Your task to perform on an android device: What is the capital of the United Kingdom? Image 0: 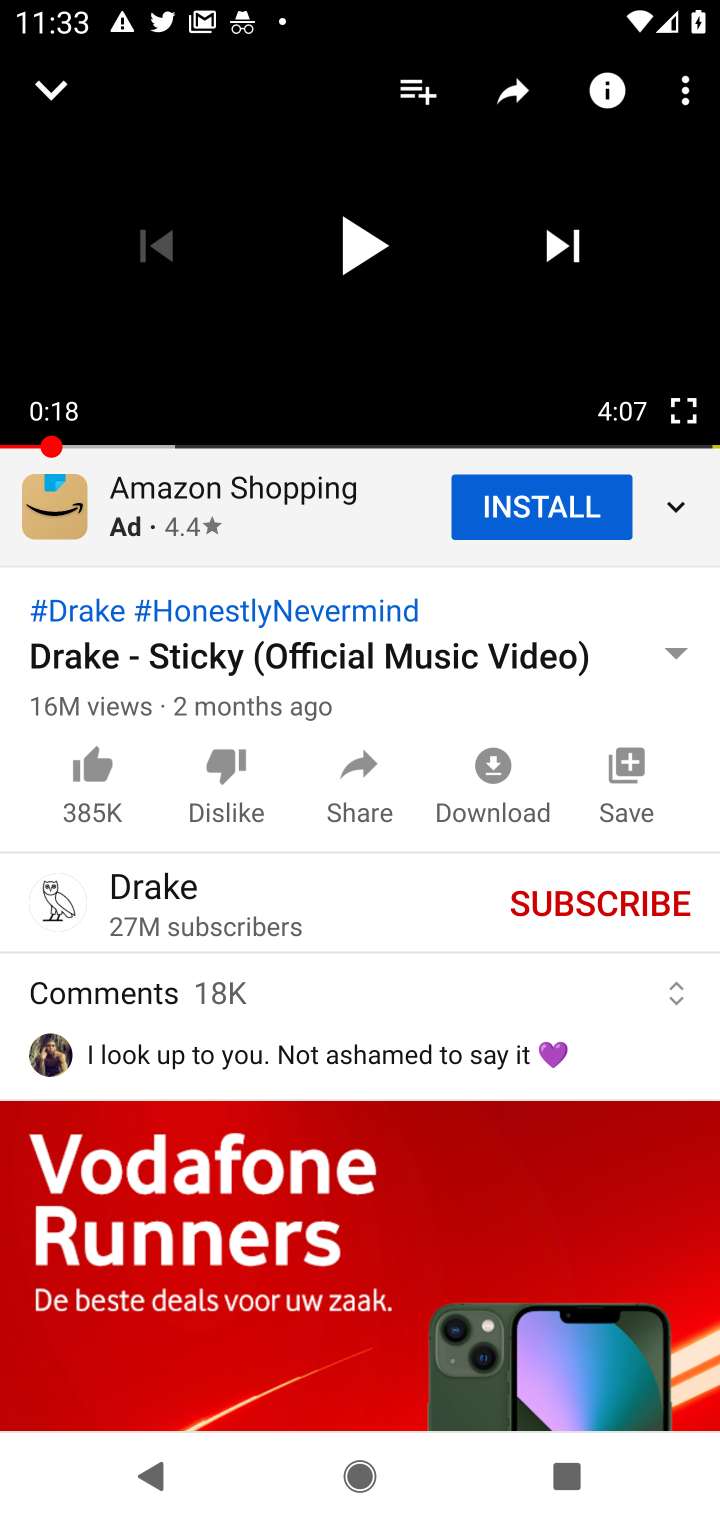
Step 0: press home button
Your task to perform on an android device: What is the capital of the United Kingdom? Image 1: 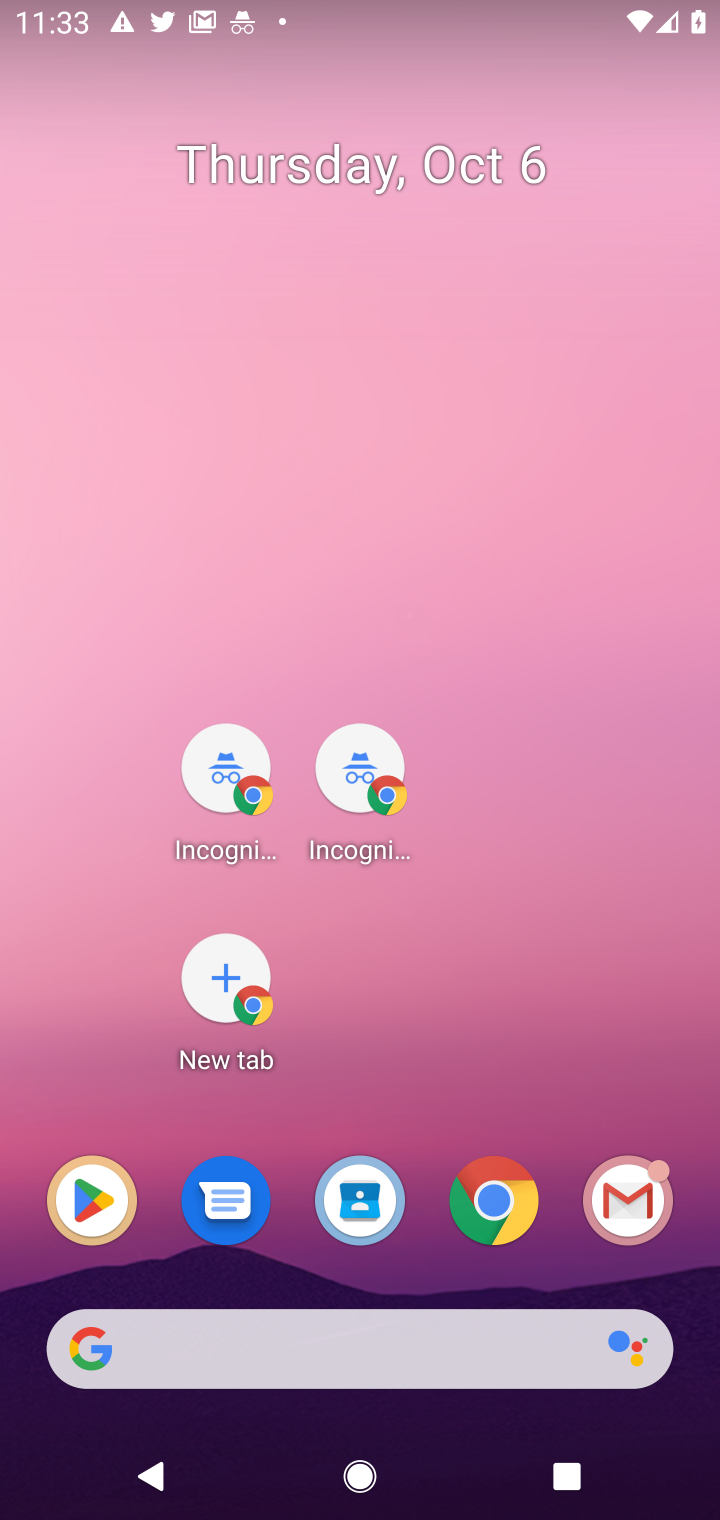
Step 1: click (499, 1202)
Your task to perform on an android device: What is the capital of the United Kingdom? Image 2: 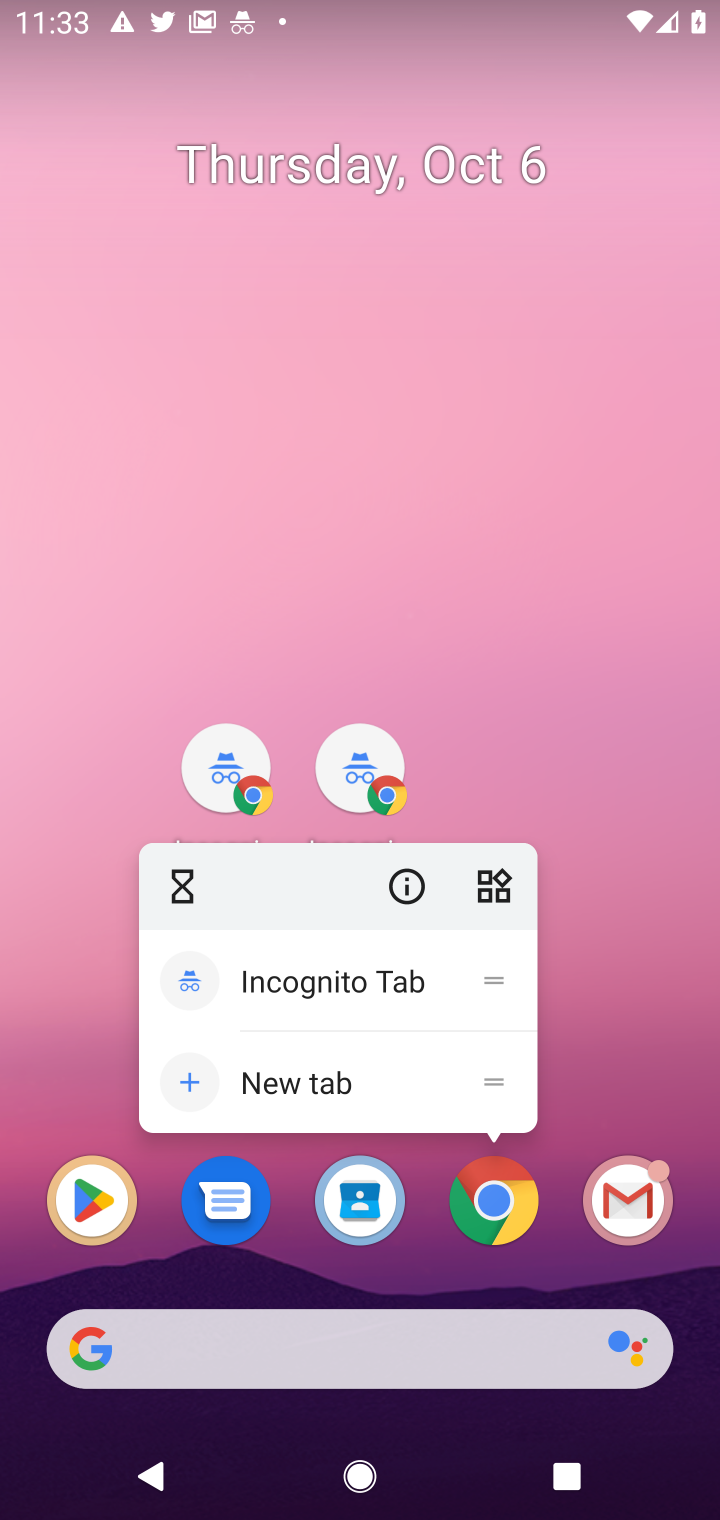
Step 2: click (500, 1205)
Your task to perform on an android device: What is the capital of the United Kingdom? Image 3: 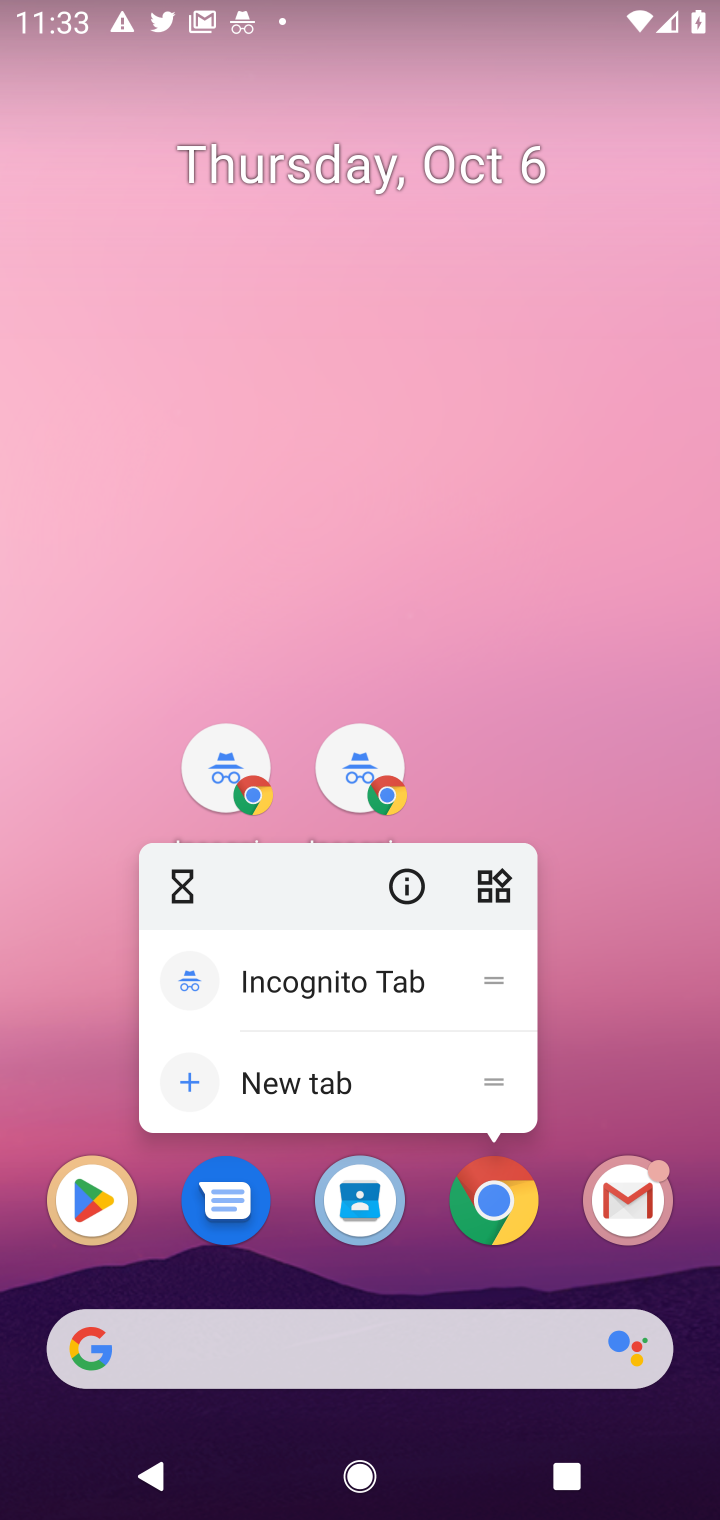
Step 3: press back button
Your task to perform on an android device: What is the capital of the United Kingdom? Image 4: 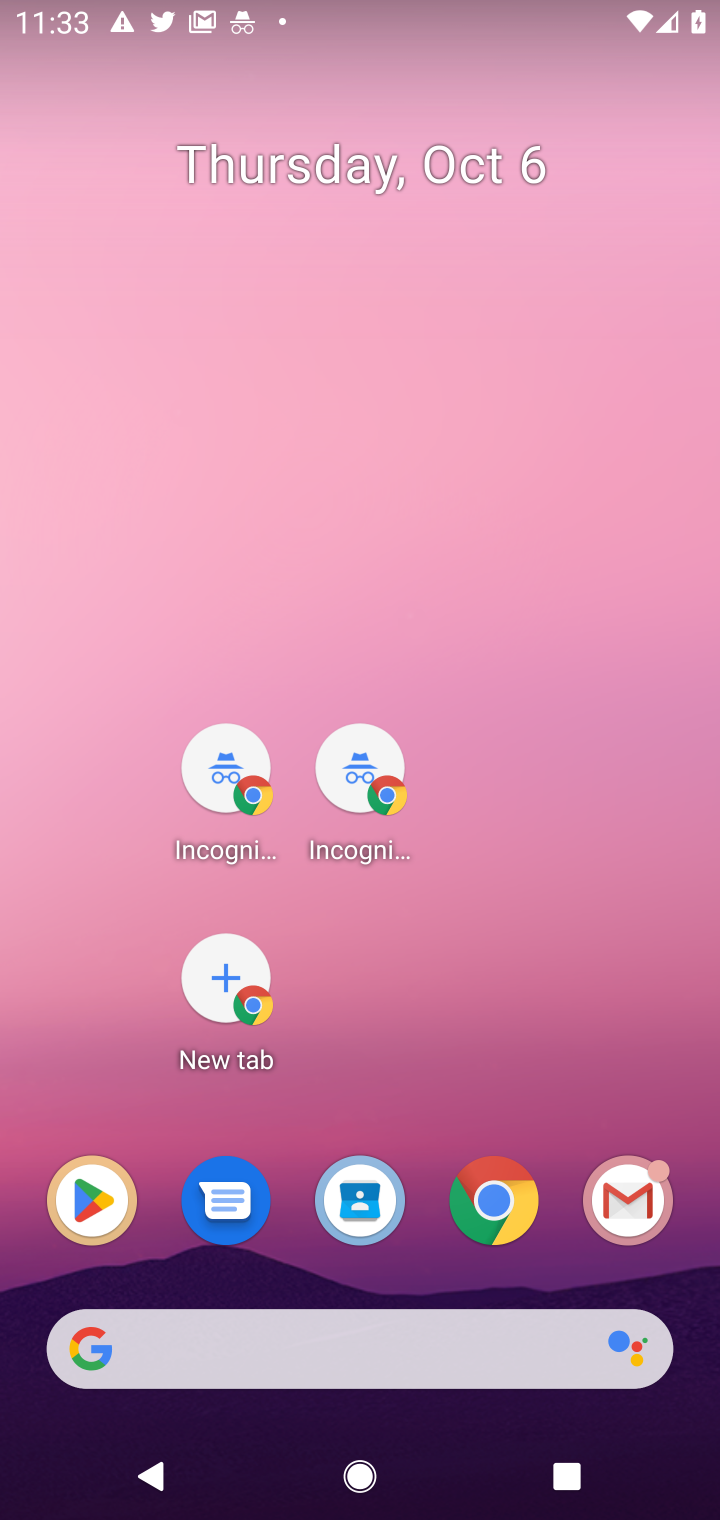
Step 4: press back button
Your task to perform on an android device: What is the capital of the United Kingdom? Image 5: 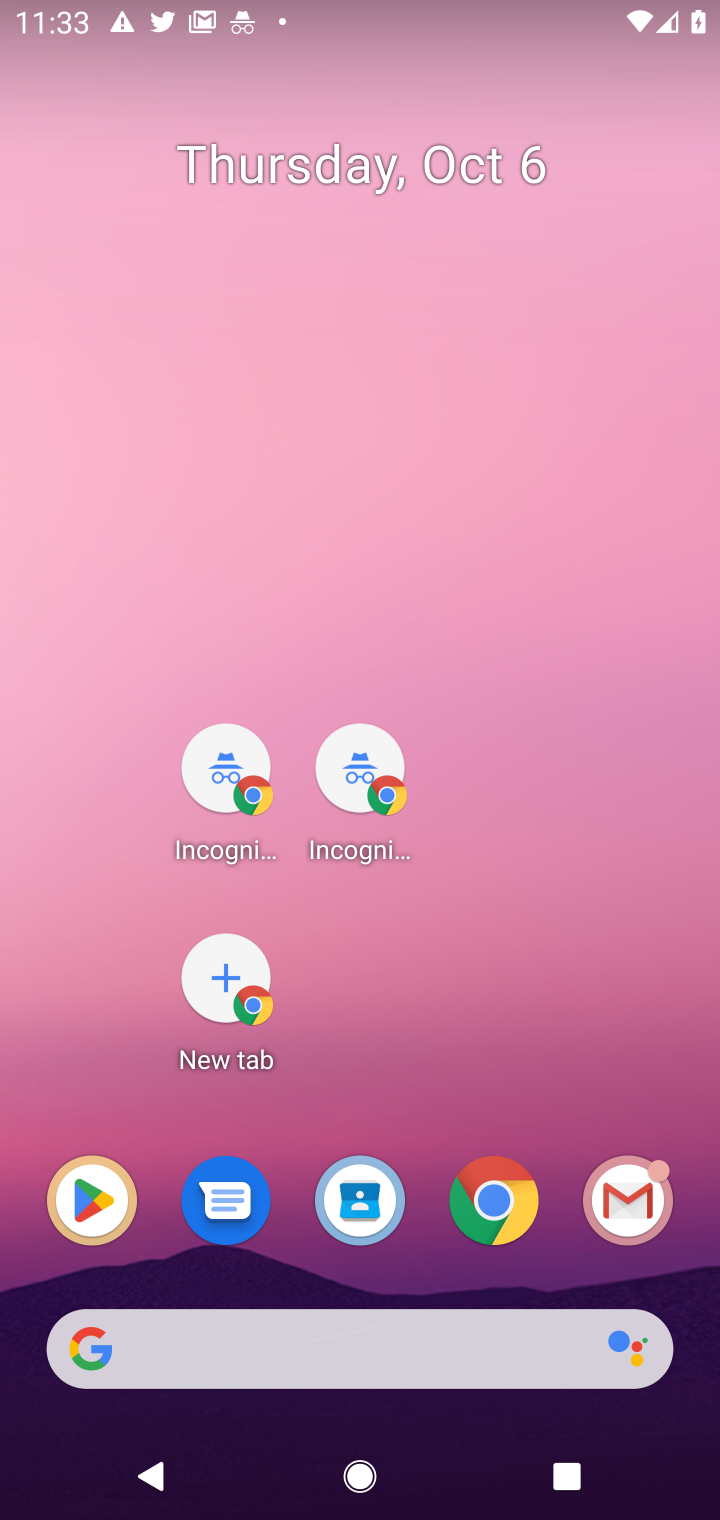
Step 5: press back button
Your task to perform on an android device: What is the capital of the United Kingdom? Image 6: 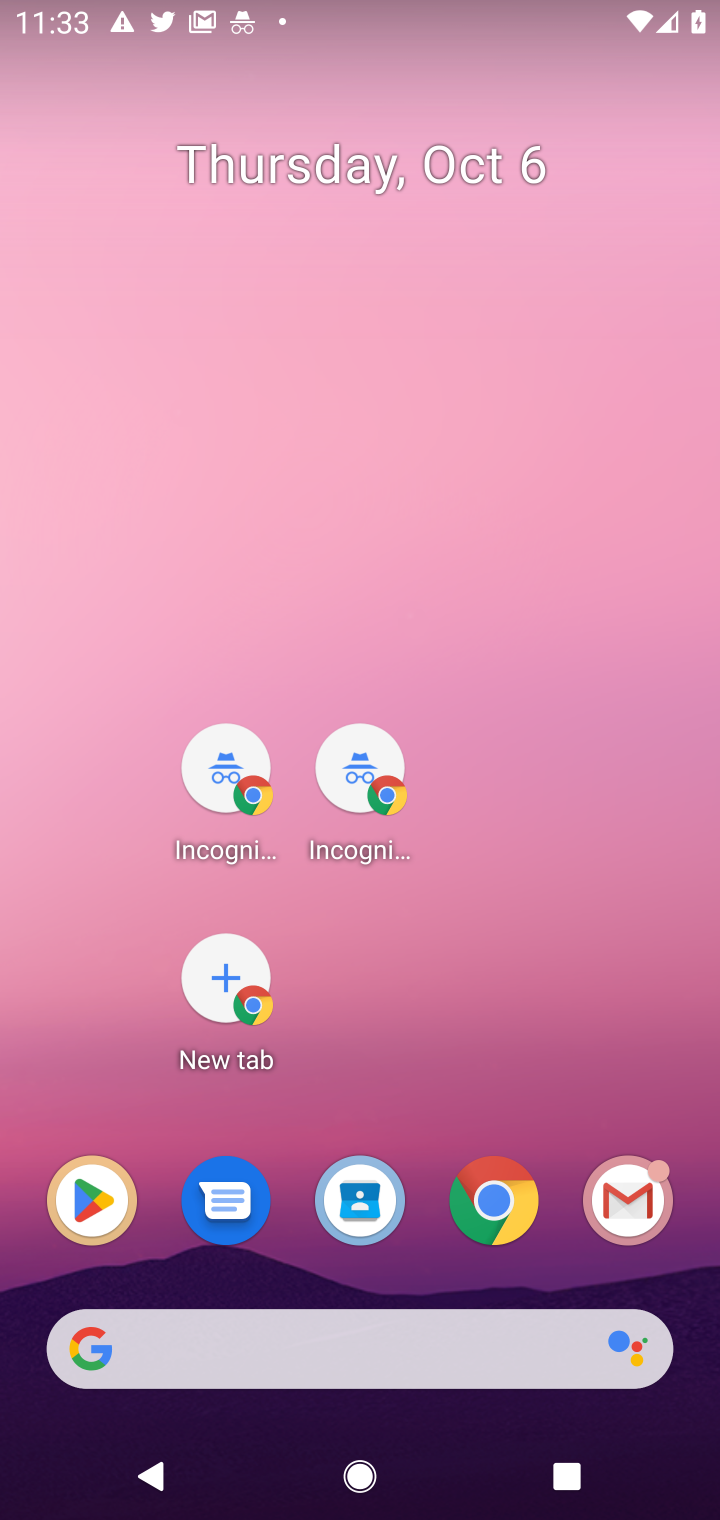
Step 6: click (506, 1211)
Your task to perform on an android device: What is the capital of the United Kingdom? Image 7: 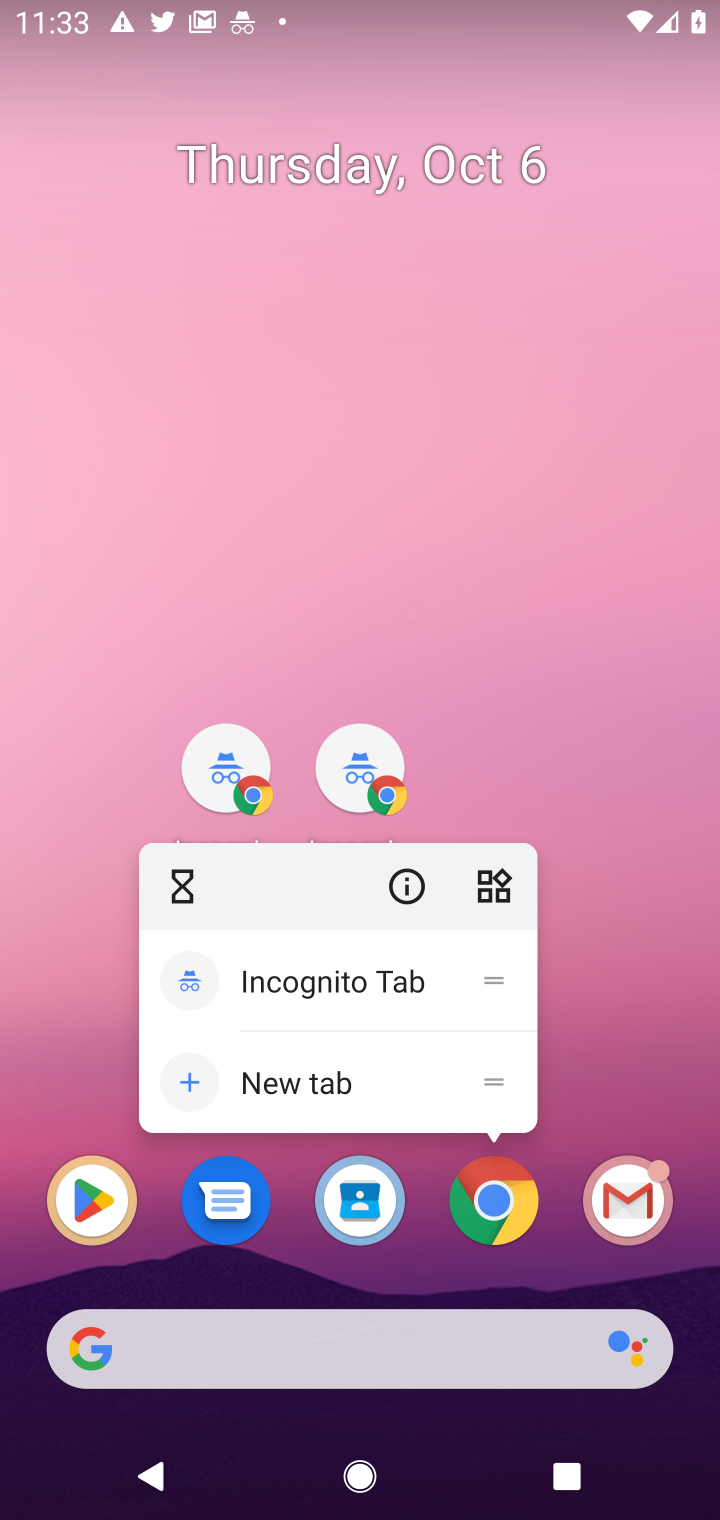
Step 7: click (508, 1225)
Your task to perform on an android device: What is the capital of the United Kingdom? Image 8: 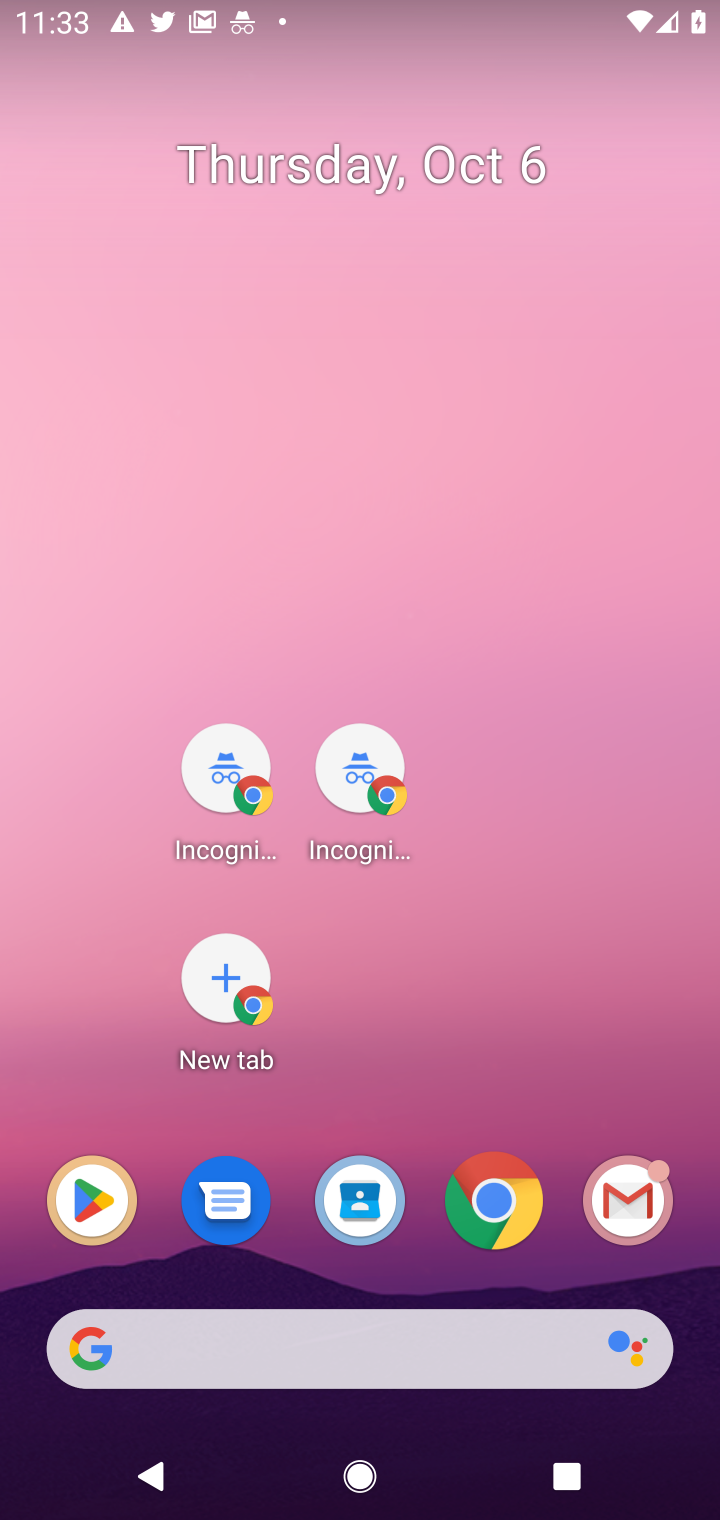
Step 8: press back button
Your task to perform on an android device: What is the capital of the United Kingdom? Image 9: 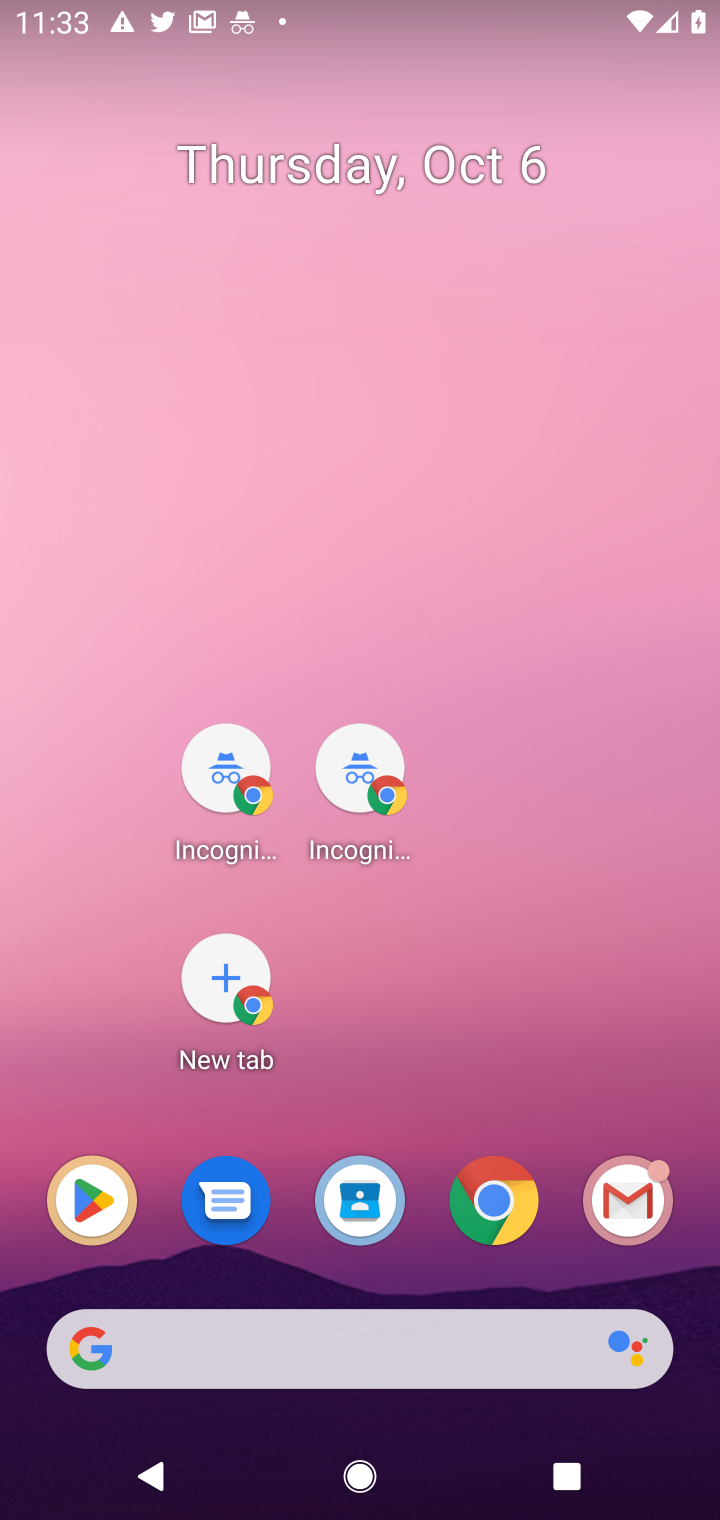
Step 9: press back button
Your task to perform on an android device: What is the capital of the United Kingdom? Image 10: 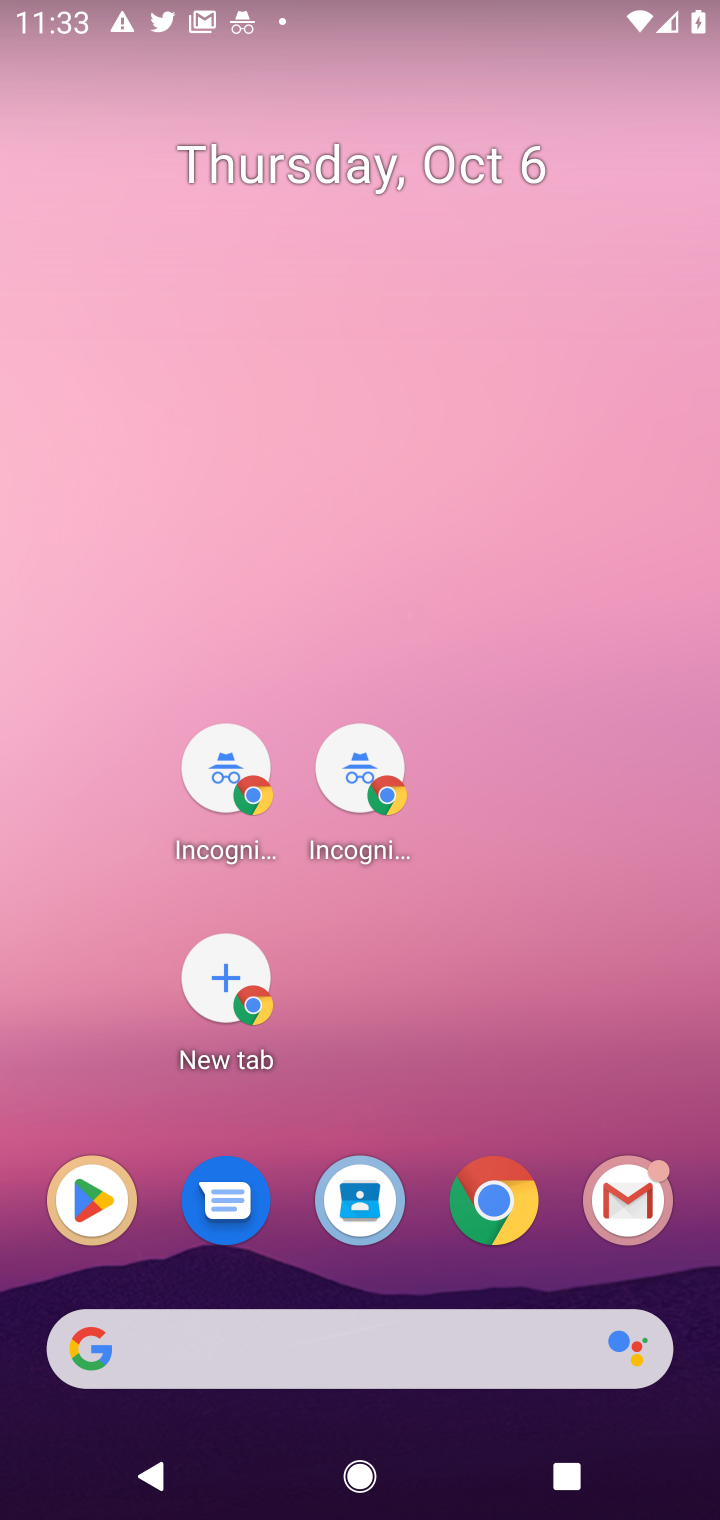
Step 10: press back button
Your task to perform on an android device: What is the capital of the United Kingdom? Image 11: 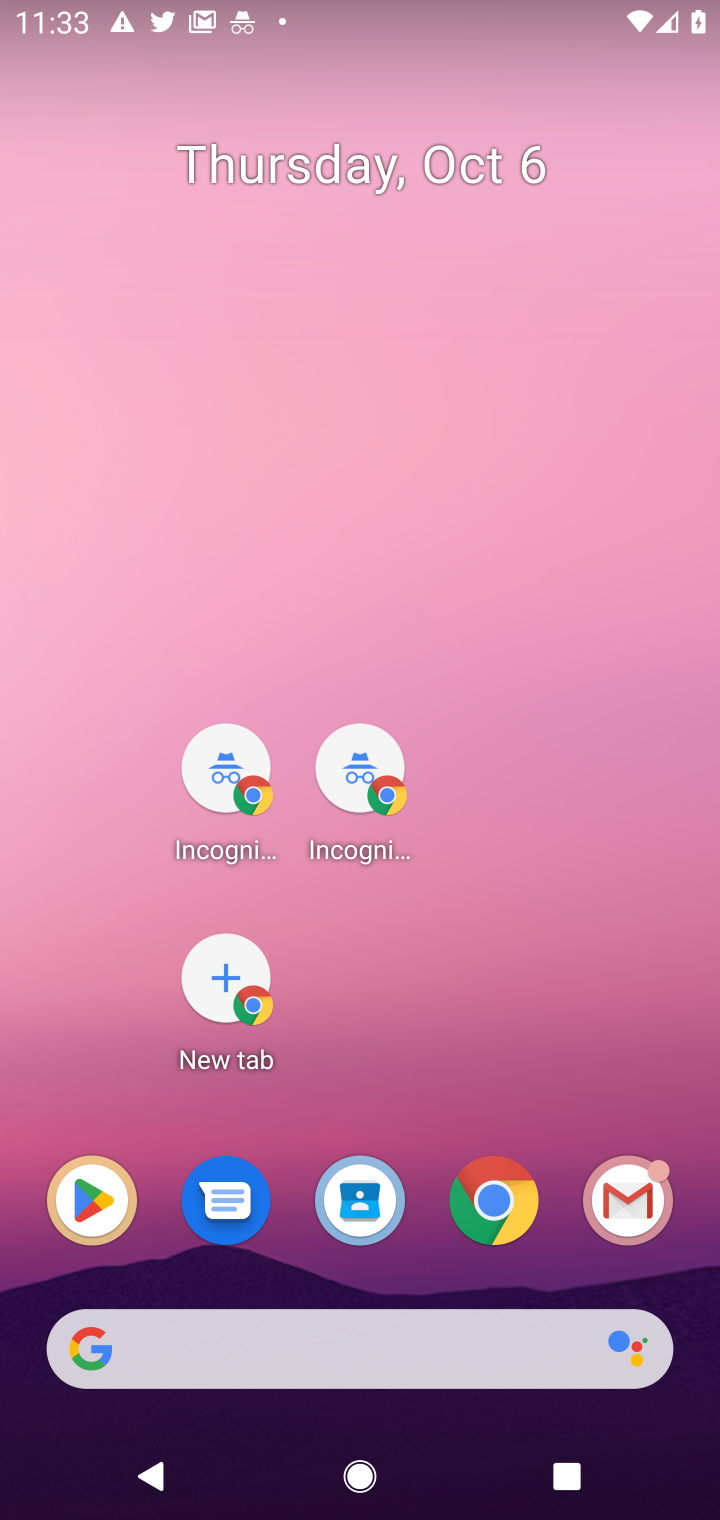
Step 11: press home button
Your task to perform on an android device: What is the capital of the United Kingdom? Image 12: 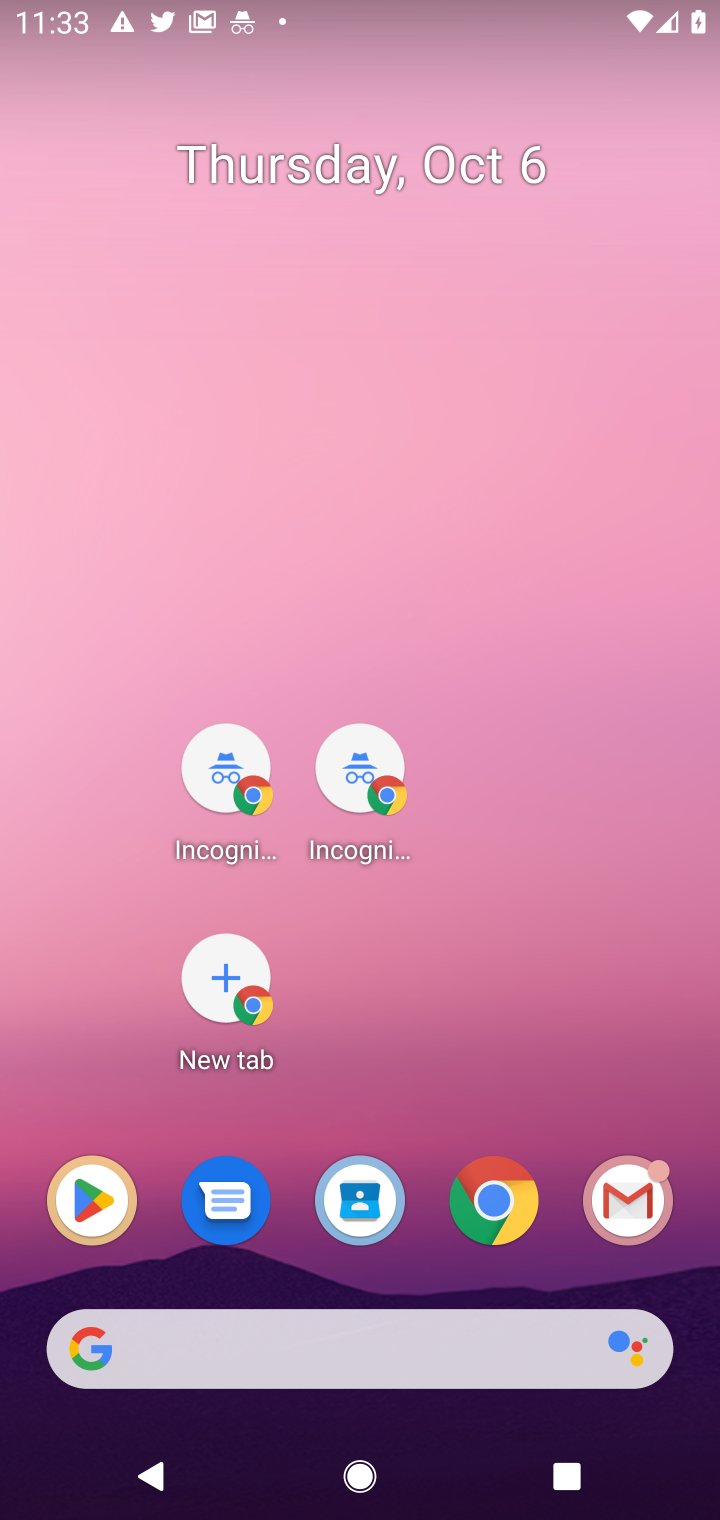
Step 12: press back button
Your task to perform on an android device: What is the capital of the United Kingdom? Image 13: 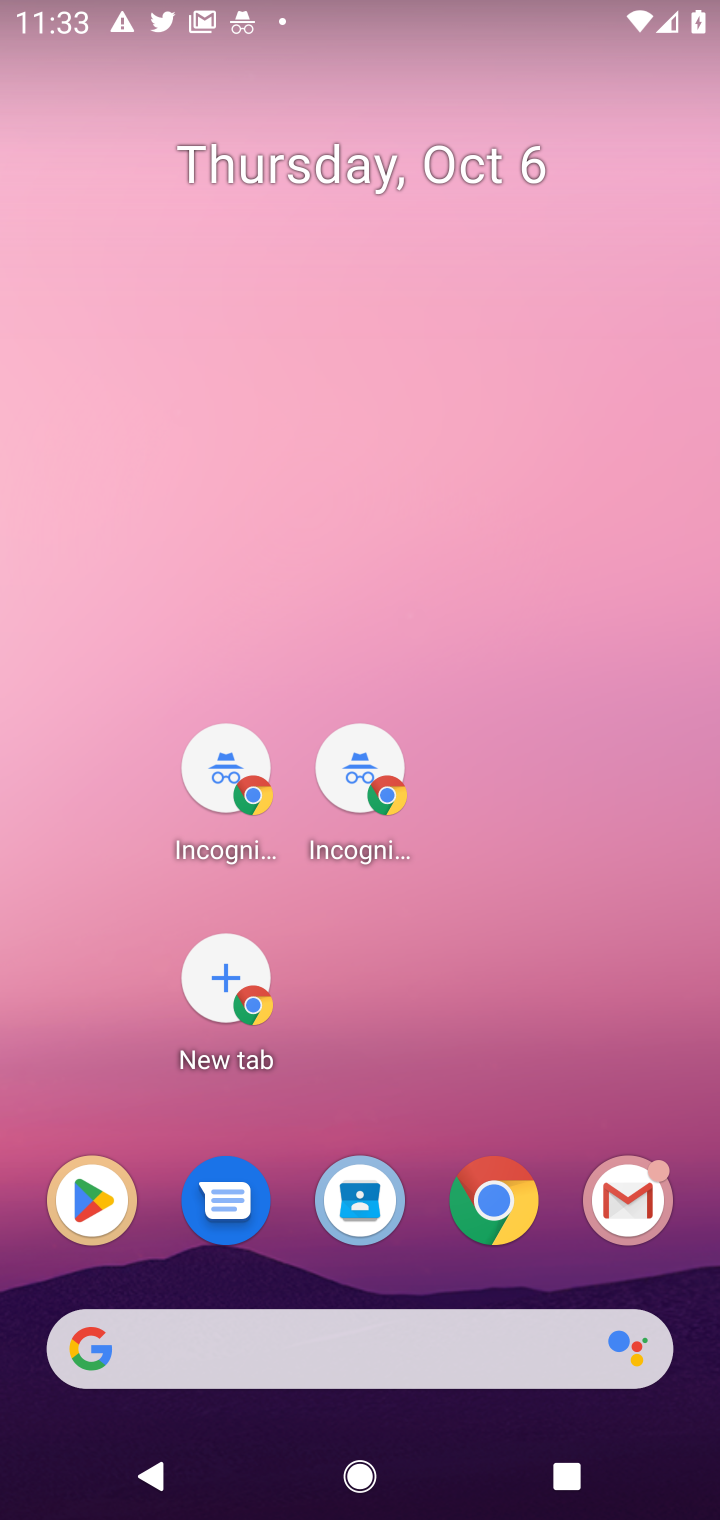
Step 13: click (508, 1210)
Your task to perform on an android device: What is the capital of the United Kingdom? Image 14: 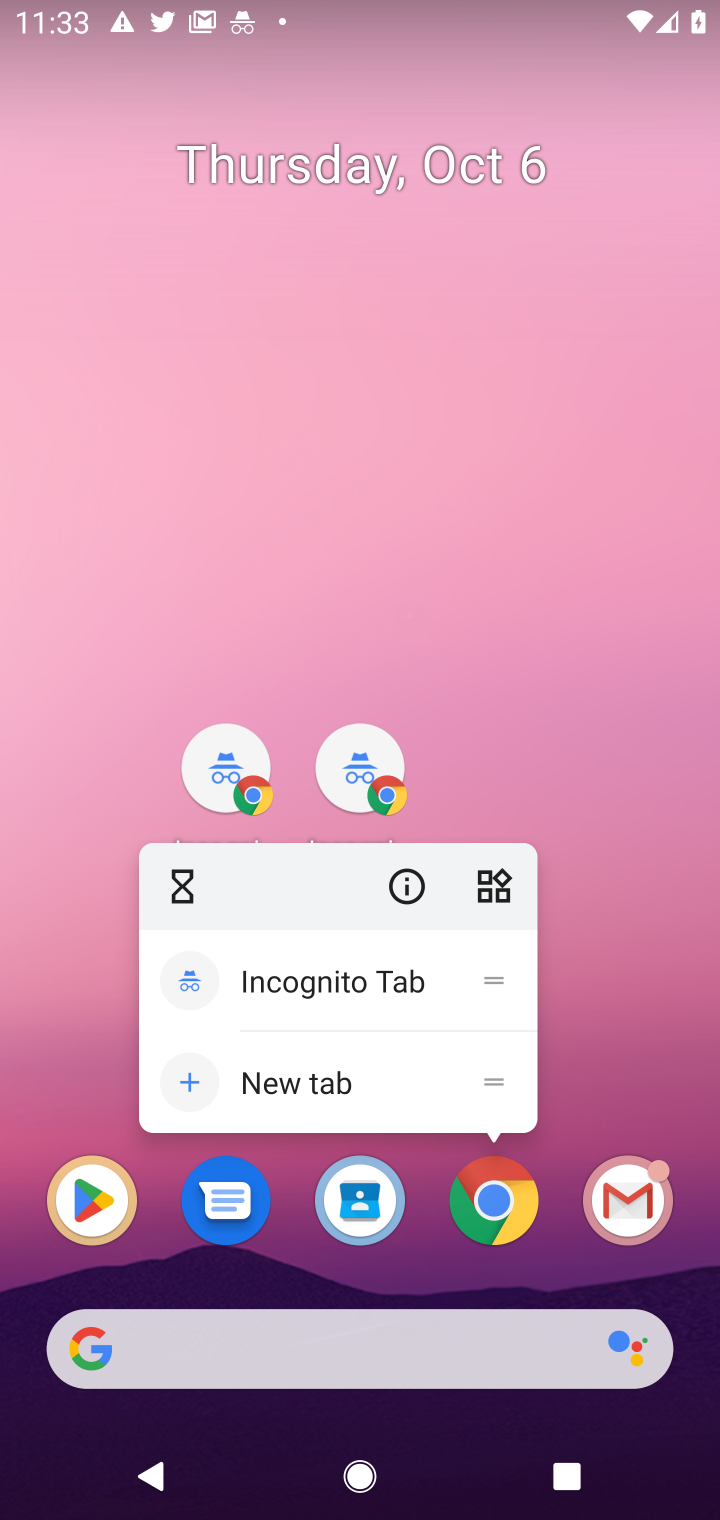
Step 14: click (498, 1221)
Your task to perform on an android device: What is the capital of the United Kingdom? Image 15: 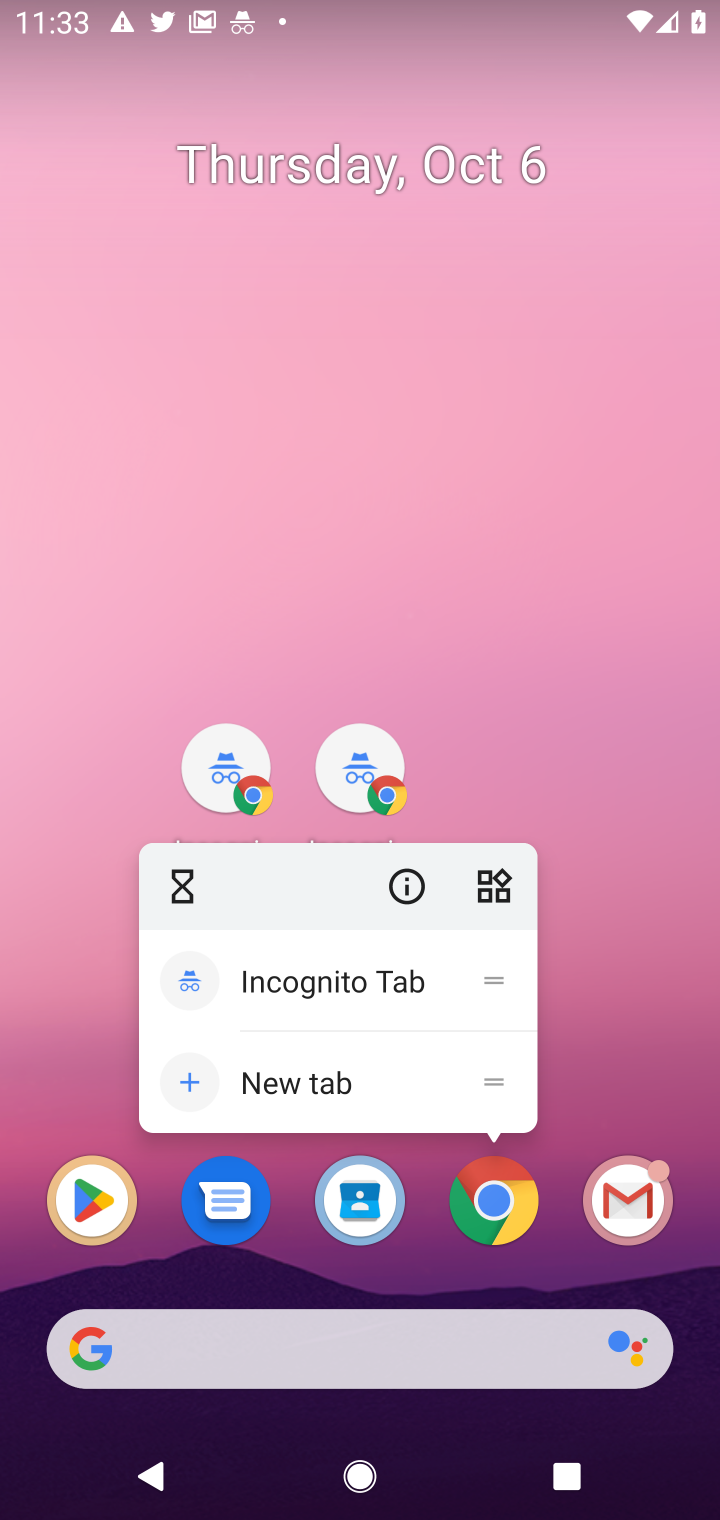
Step 15: press back button
Your task to perform on an android device: What is the capital of the United Kingdom? Image 16: 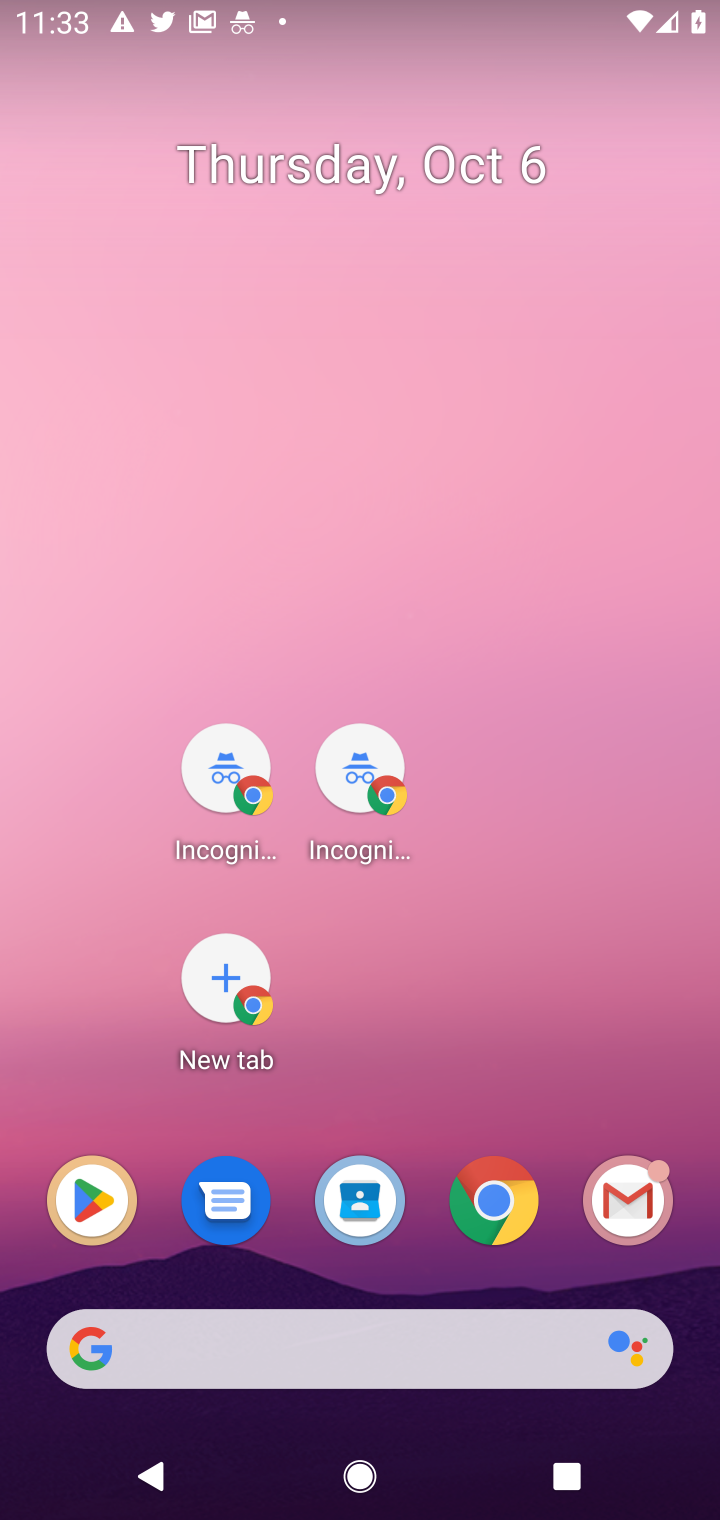
Step 16: click (472, 1203)
Your task to perform on an android device: What is the capital of the United Kingdom? Image 17: 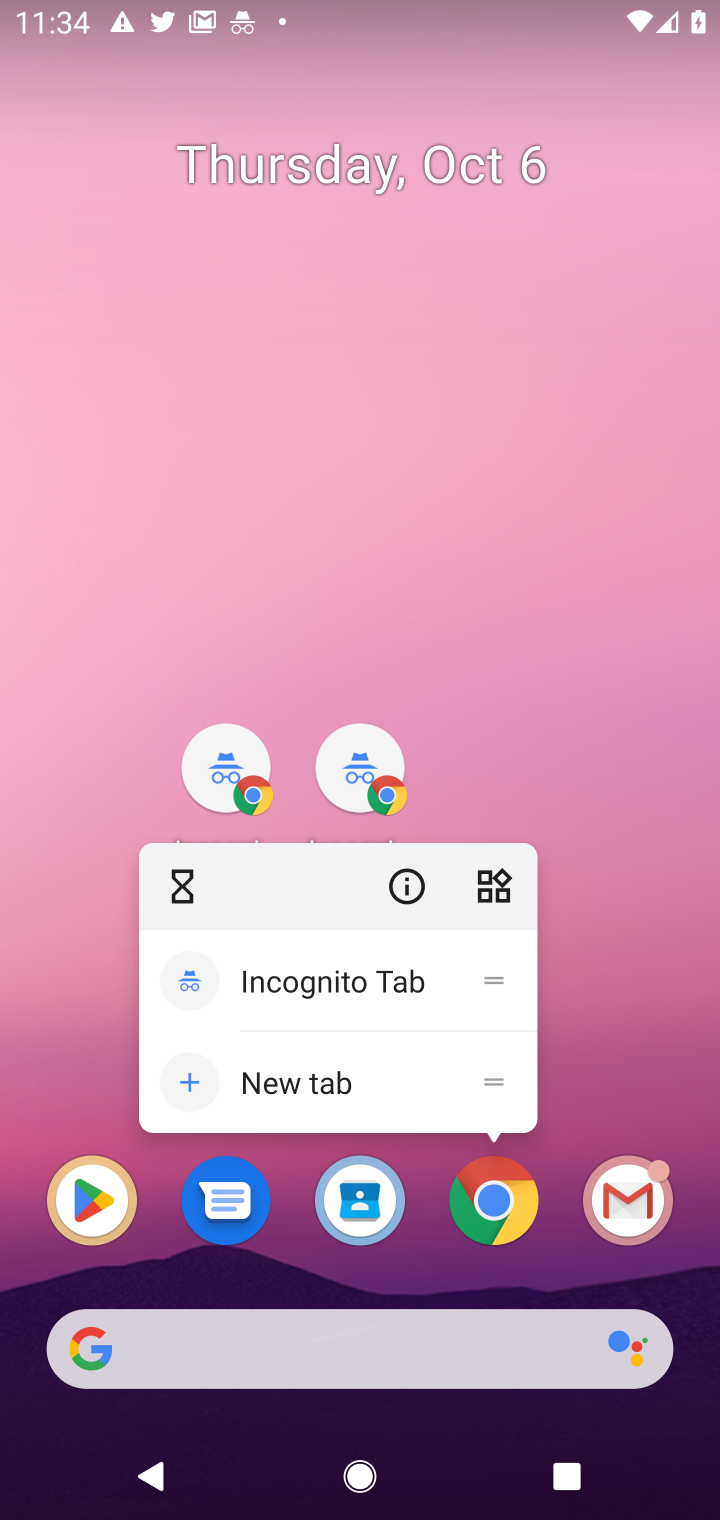
Step 17: click (474, 1189)
Your task to perform on an android device: What is the capital of the United Kingdom? Image 18: 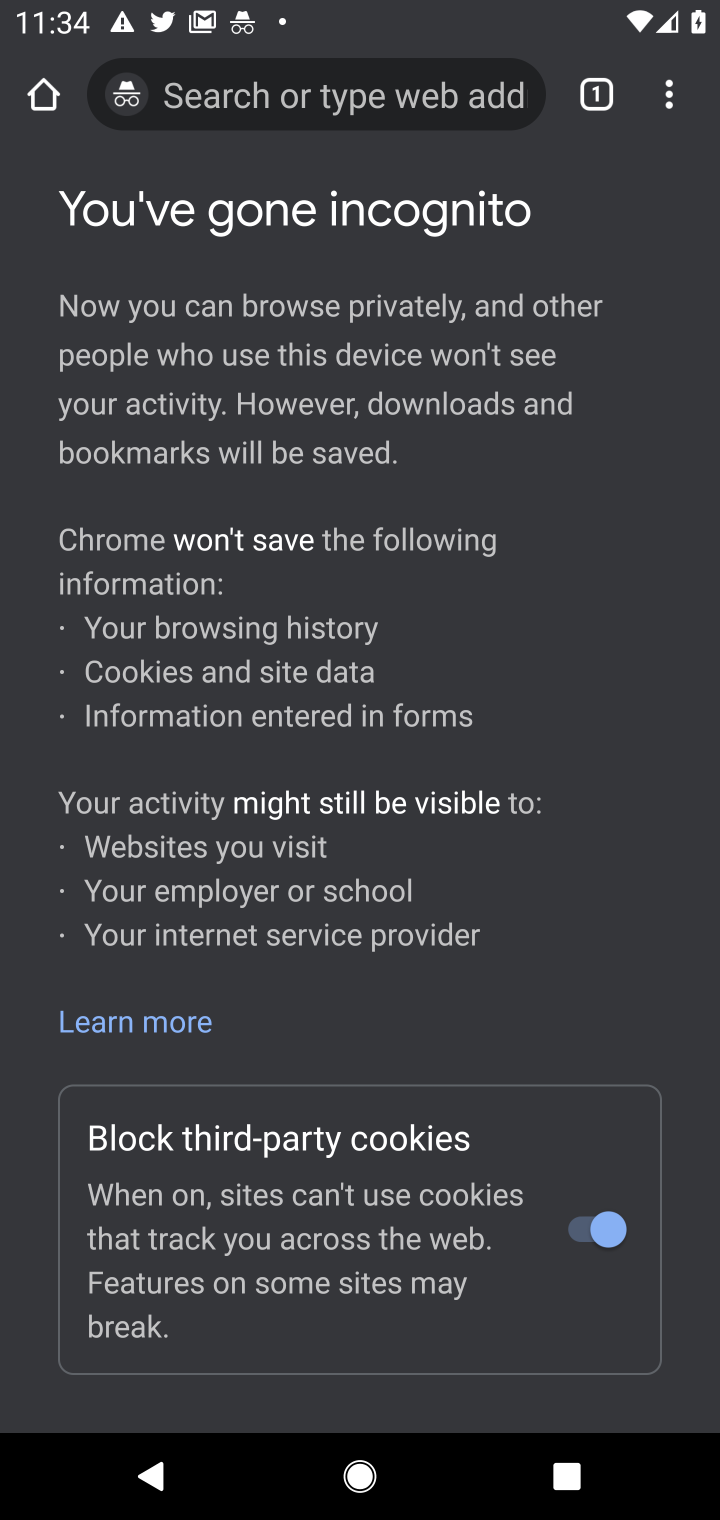
Step 18: click (428, 102)
Your task to perform on an android device: What is the capital of the United Kingdom? Image 19: 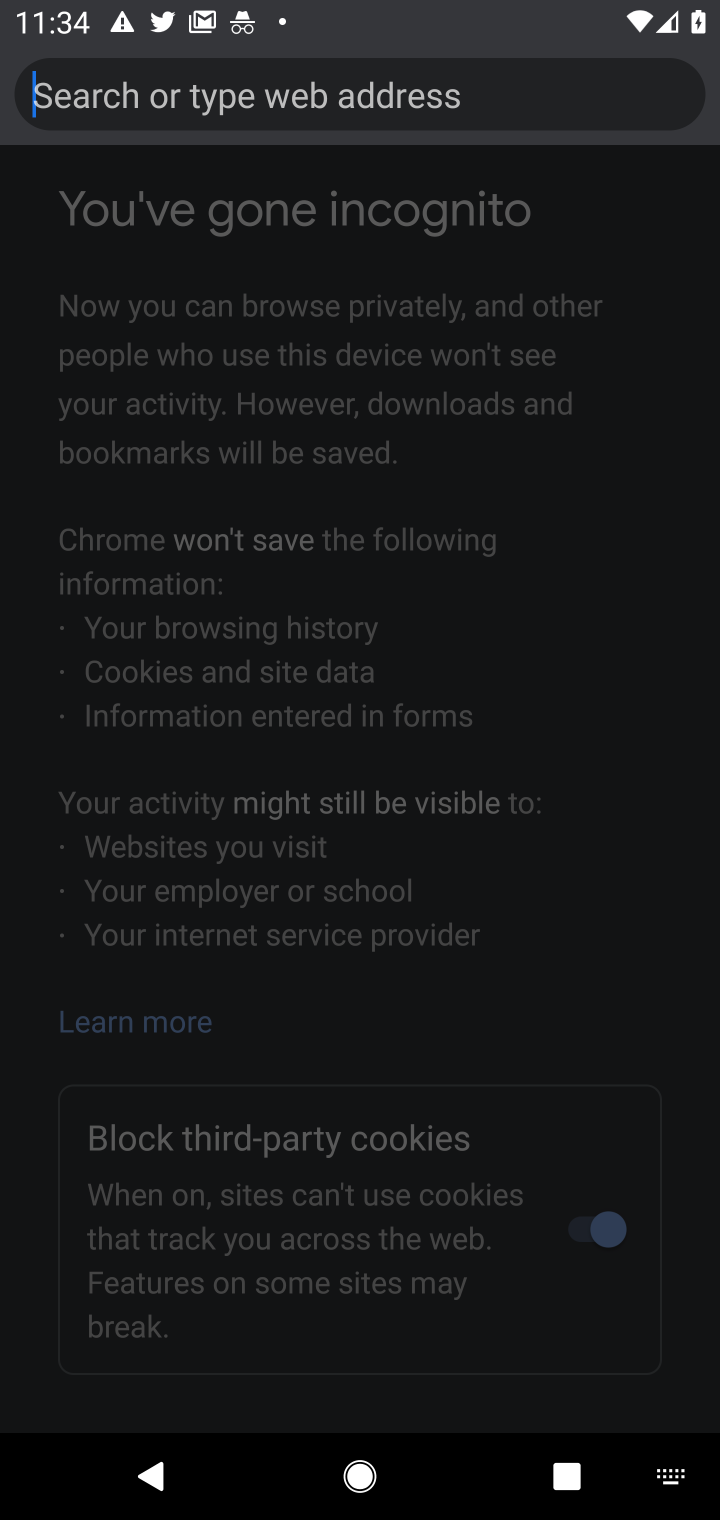
Step 19: type "capital of united kingdom"
Your task to perform on an android device: What is the capital of the United Kingdom? Image 20: 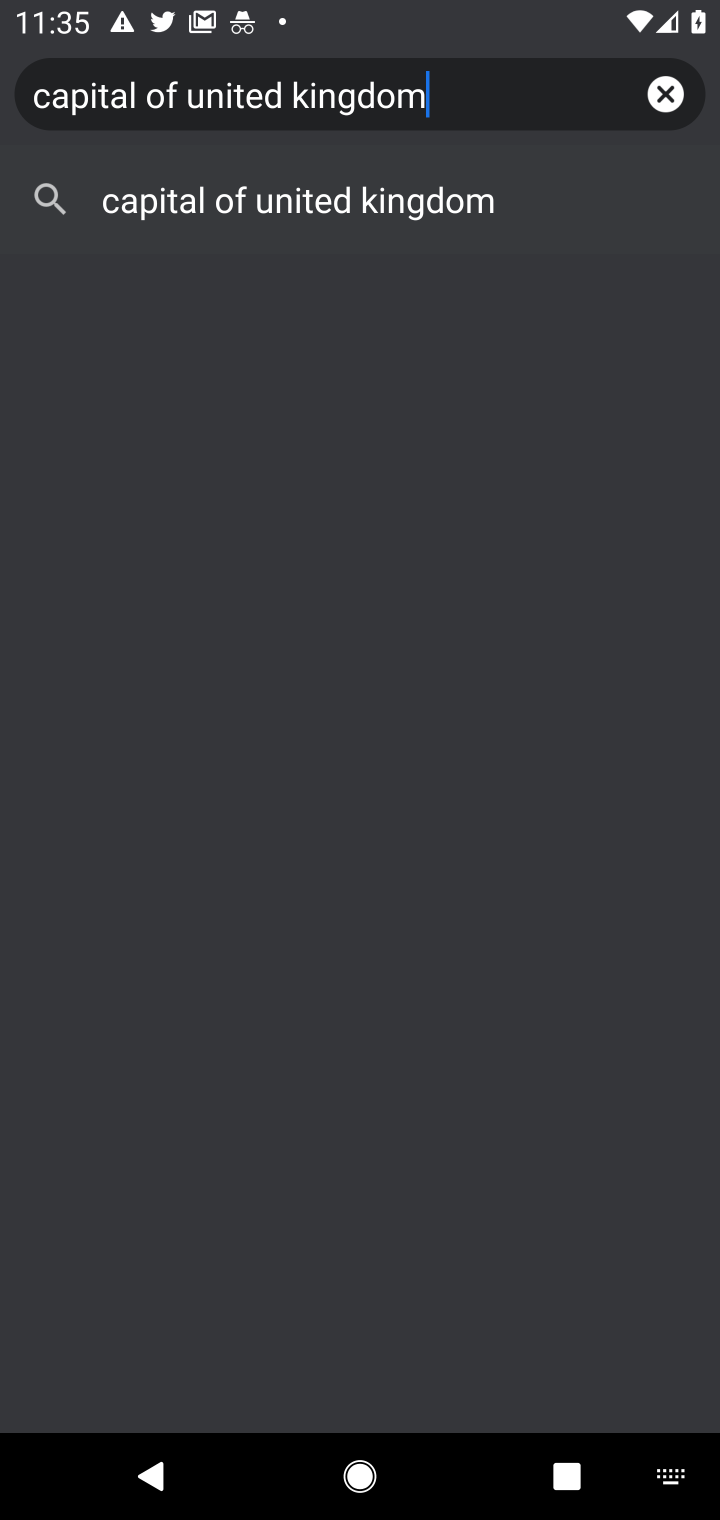
Step 20: click (388, 192)
Your task to perform on an android device: What is the capital of the United Kingdom? Image 21: 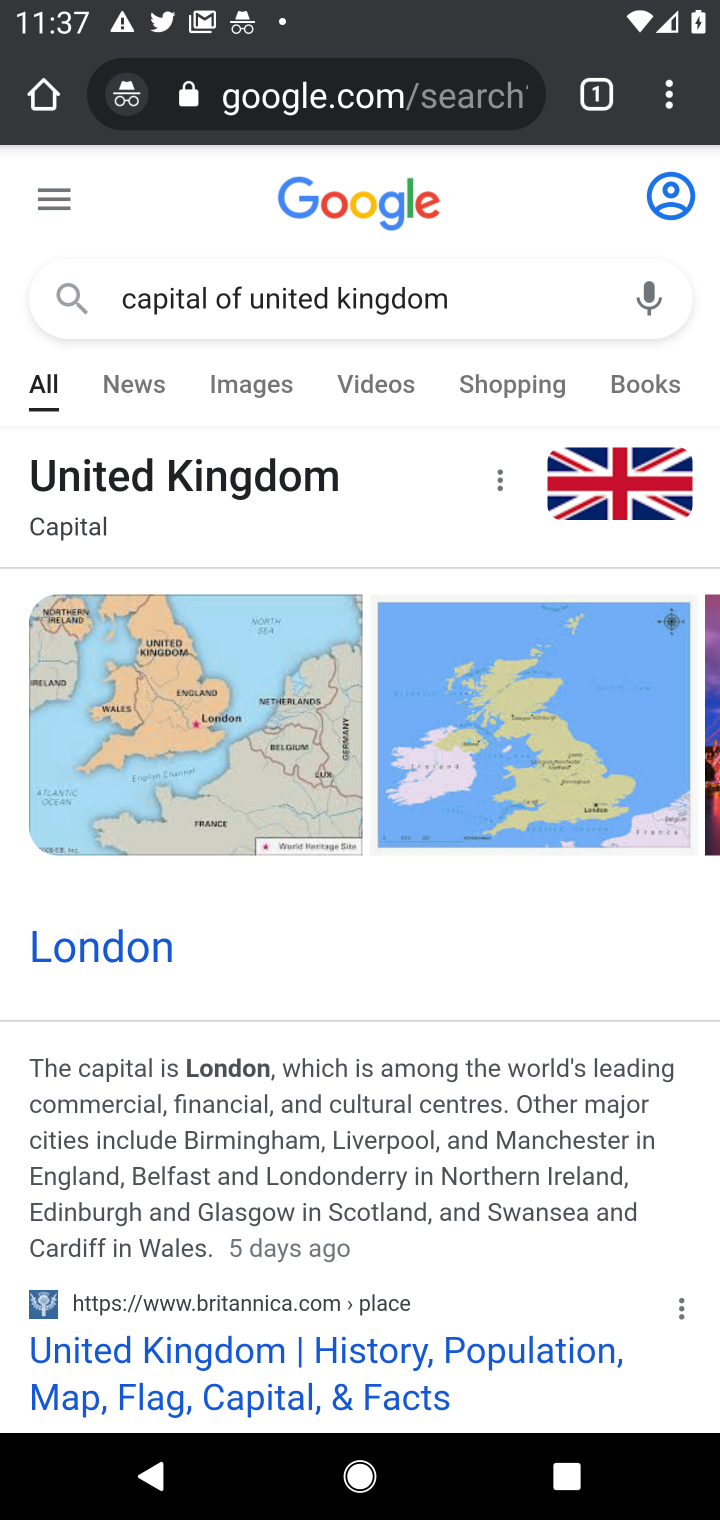
Step 21: task complete